Your task to perform on an android device: Open Maps and search for coffee Image 0: 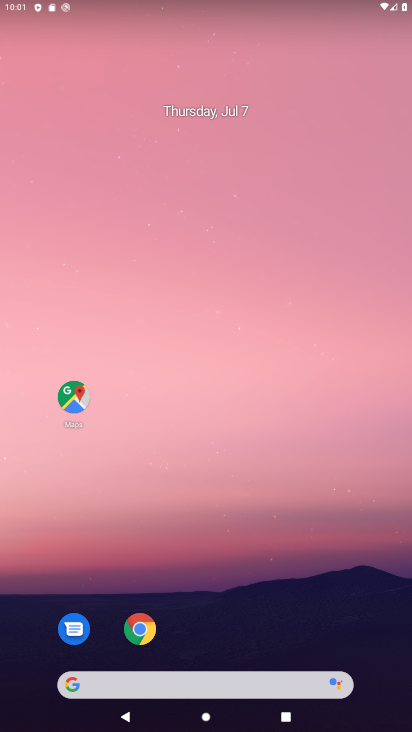
Step 0: press home button
Your task to perform on an android device: Open Maps and search for coffee Image 1: 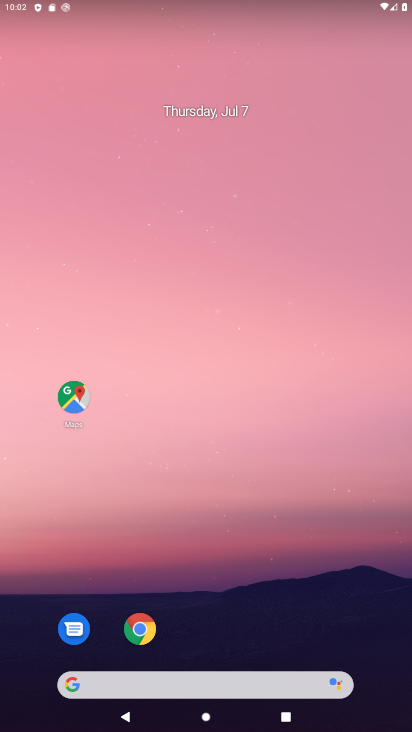
Step 1: click (81, 410)
Your task to perform on an android device: Open Maps and search for coffee Image 2: 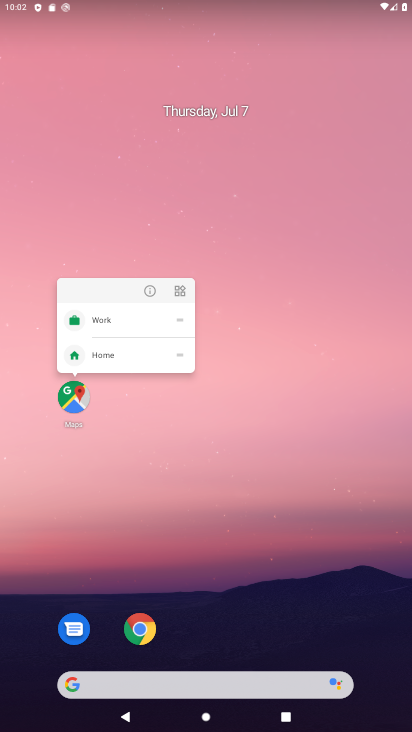
Step 2: click (81, 408)
Your task to perform on an android device: Open Maps and search for coffee Image 3: 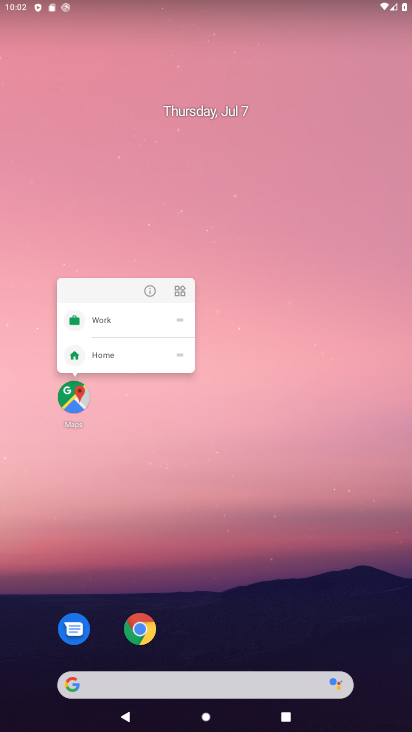
Step 3: click (81, 406)
Your task to perform on an android device: Open Maps and search for coffee Image 4: 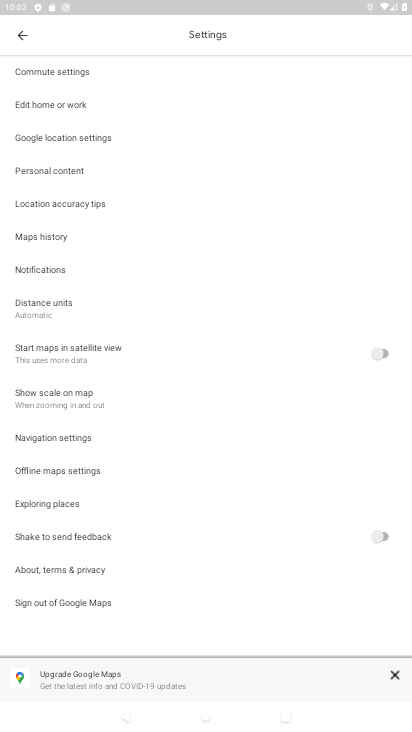
Step 4: press back button
Your task to perform on an android device: Open Maps and search for coffee Image 5: 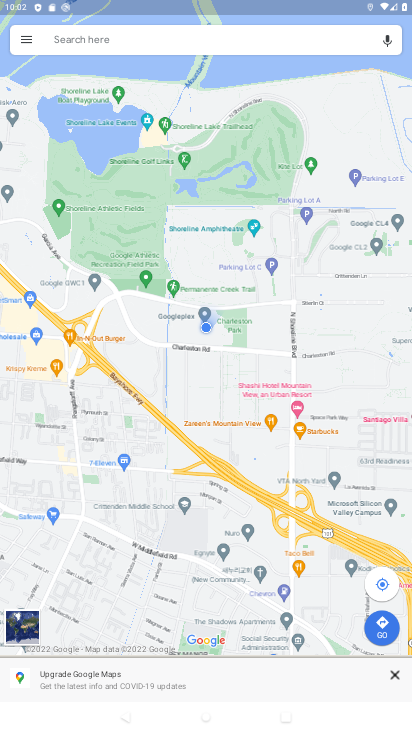
Step 5: click (128, 40)
Your task to perform on an android device: Open Maps and search for coffee Image 6: 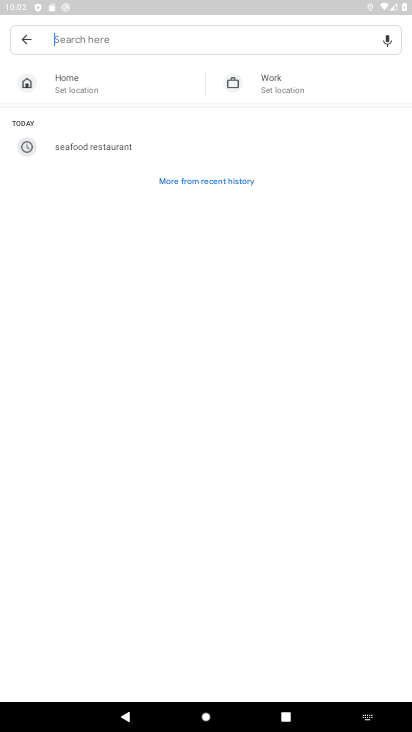
Step 6: type "coffee"
Your task to perform on an android device: Open Maps and search for coffee Image 7: 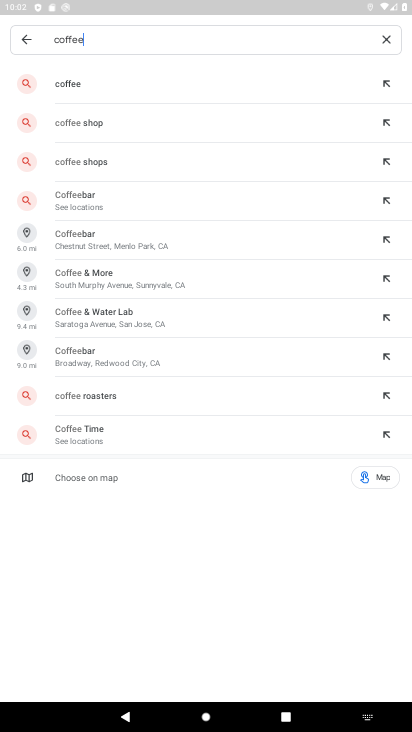
Step 7: click (59, 87)
Your task to perform on an android device: Open Maps and search for coffee Image 8: 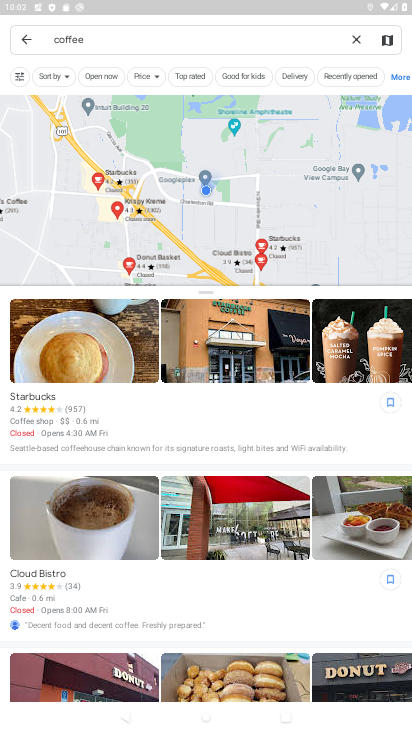
Step 8: task complete